Your task to perform on an android device: open app "LiveIn - Share Your Moment" (install if not already installed) and go to login screen Image 0: 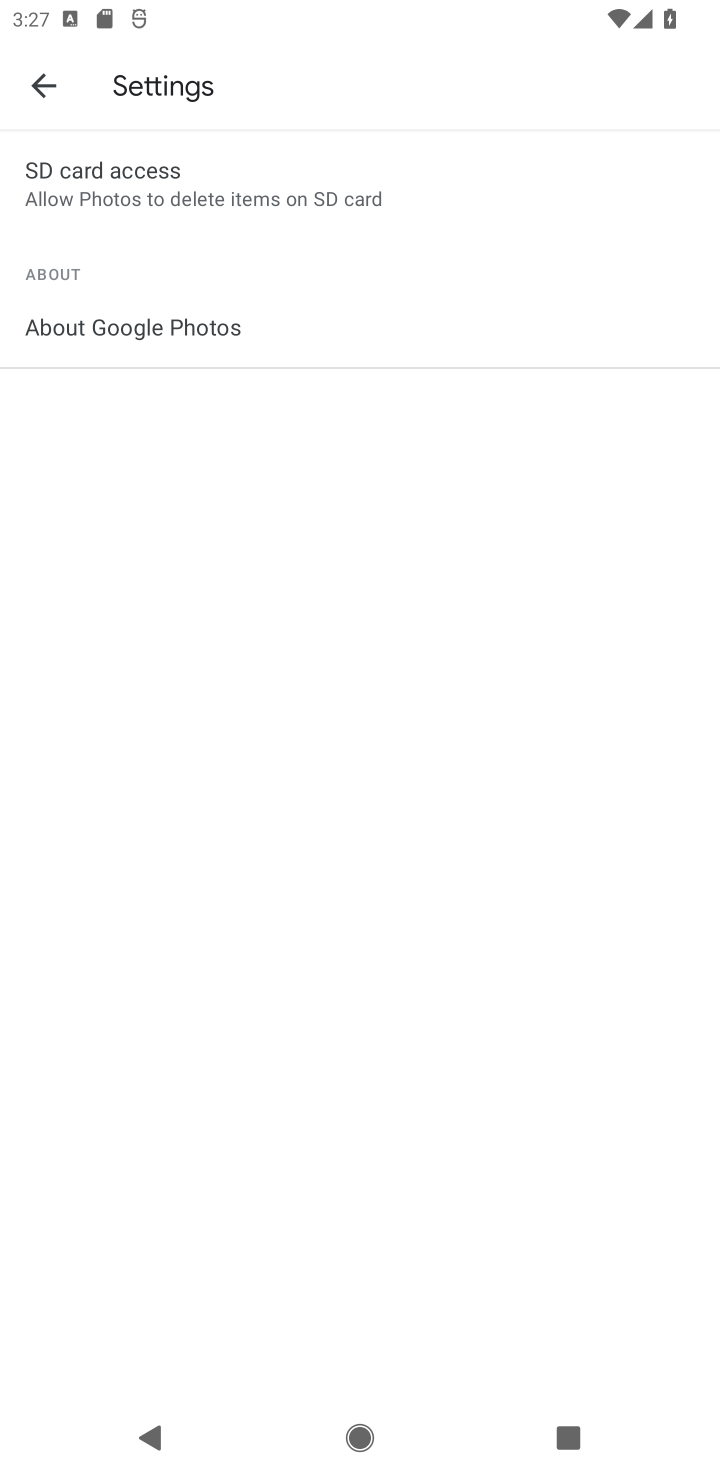
Step 0: press home button
Your task to perform on an android device: open app "LiveIn - Share Your Moment" (install if not already installed) and go to login screen Image 1: 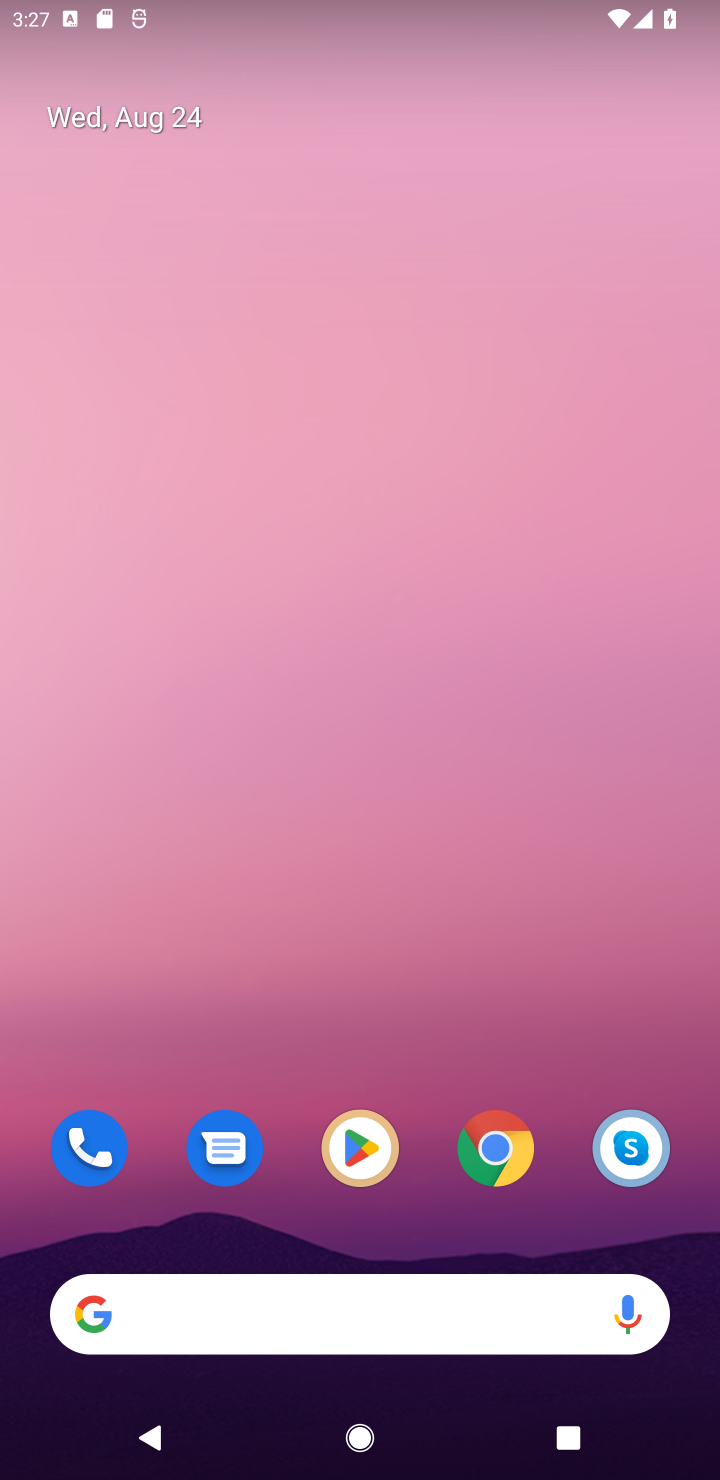
Step 1: click (369, 1153)
Your task to perform on an android device: open app "LiveIn - Share Your Moment" (install if not already installed) and go to login screen Image 2: 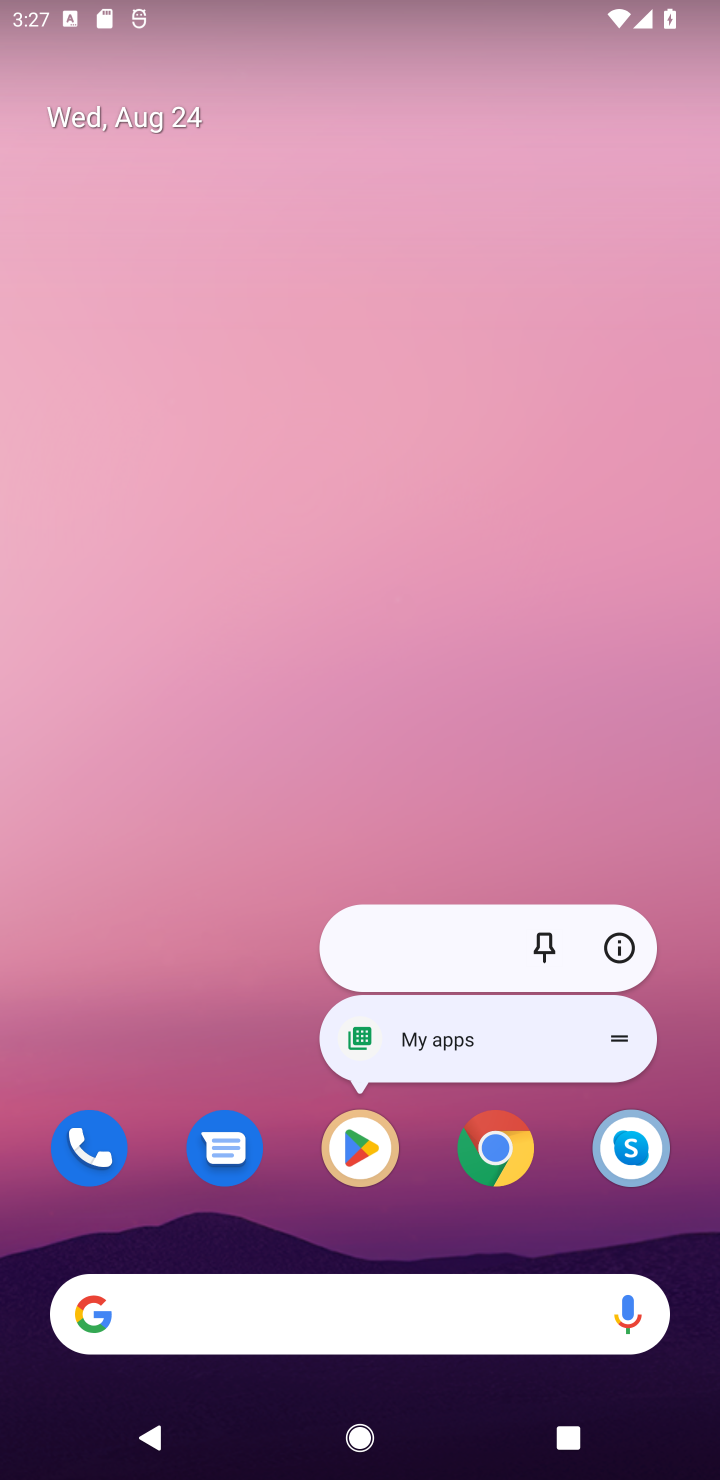
Step 2: click (351, 1167)
Your task to perform on an android device: open app "LiveIn - Share Your Moment" (install if not already installed) and go to login screen Image 3: 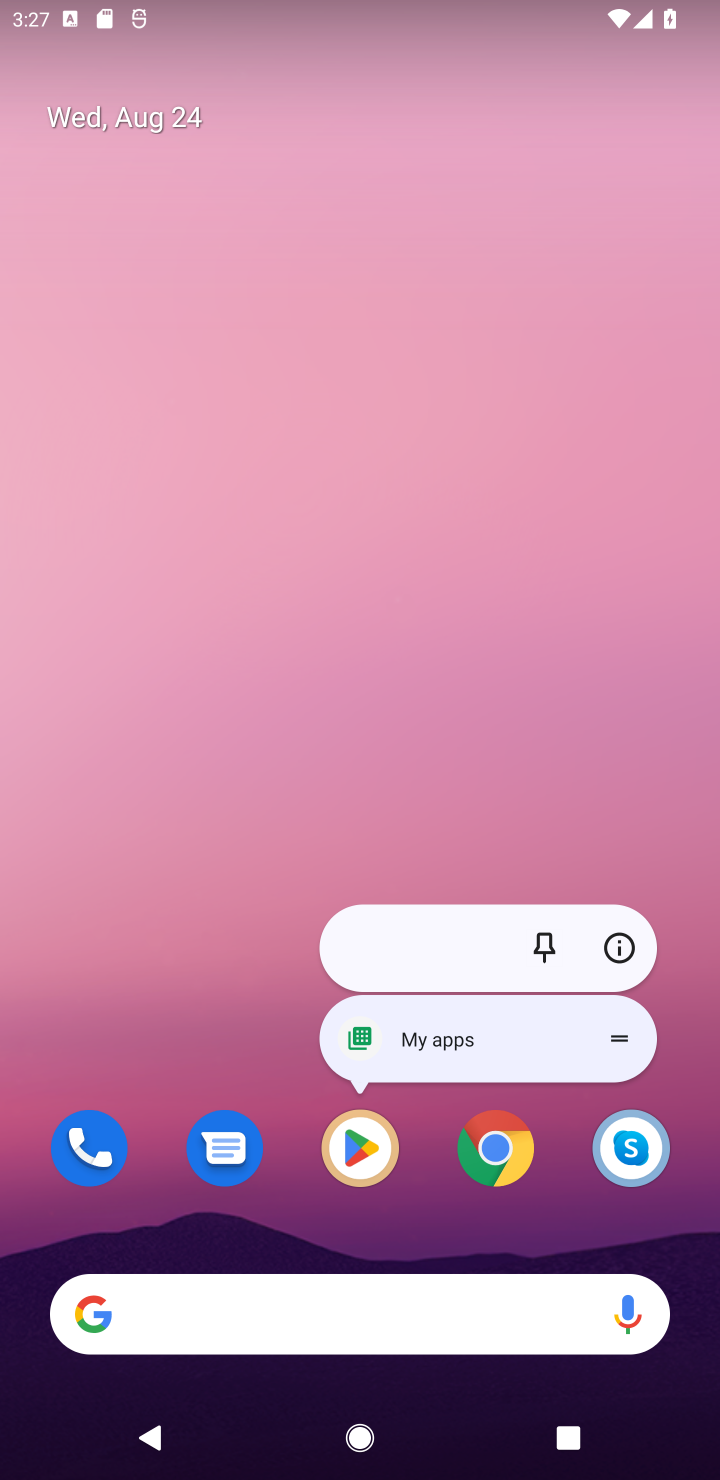
Step 3: click (376, 1131)
Your task to perform on an android device: open app "LiveIn - Share Your Moment" (install if not already installed) and go to login screen Image 4: 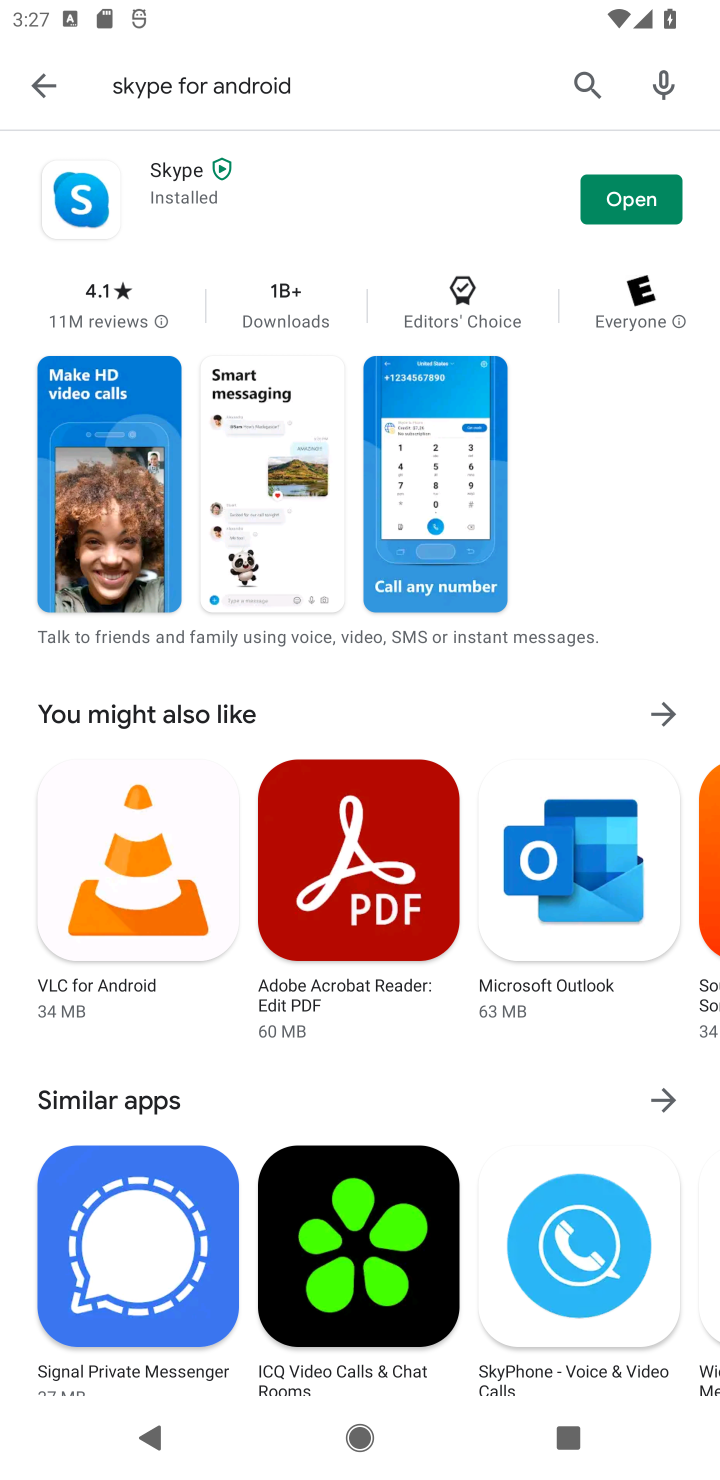
Step 4: click (591, 83)
Your task to perform on an android device: open app "LiveIn - Share Your Moment" (install if not already installed) and go to login screen Image 5: 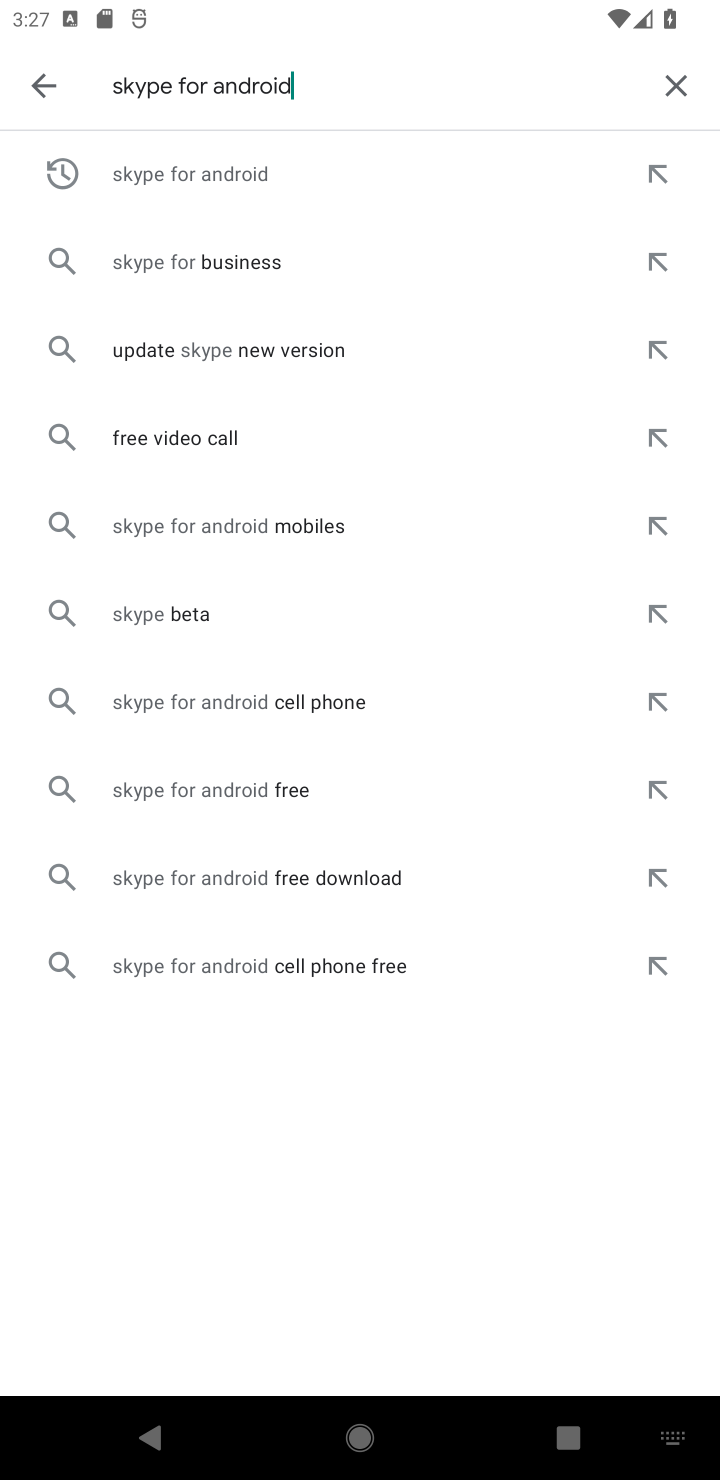
Step 5: click (662, 65)
Your task to perform on an android device: open app "LiveIn - Share Your Moment" (install if not already installed) and go to login screen Image 6: 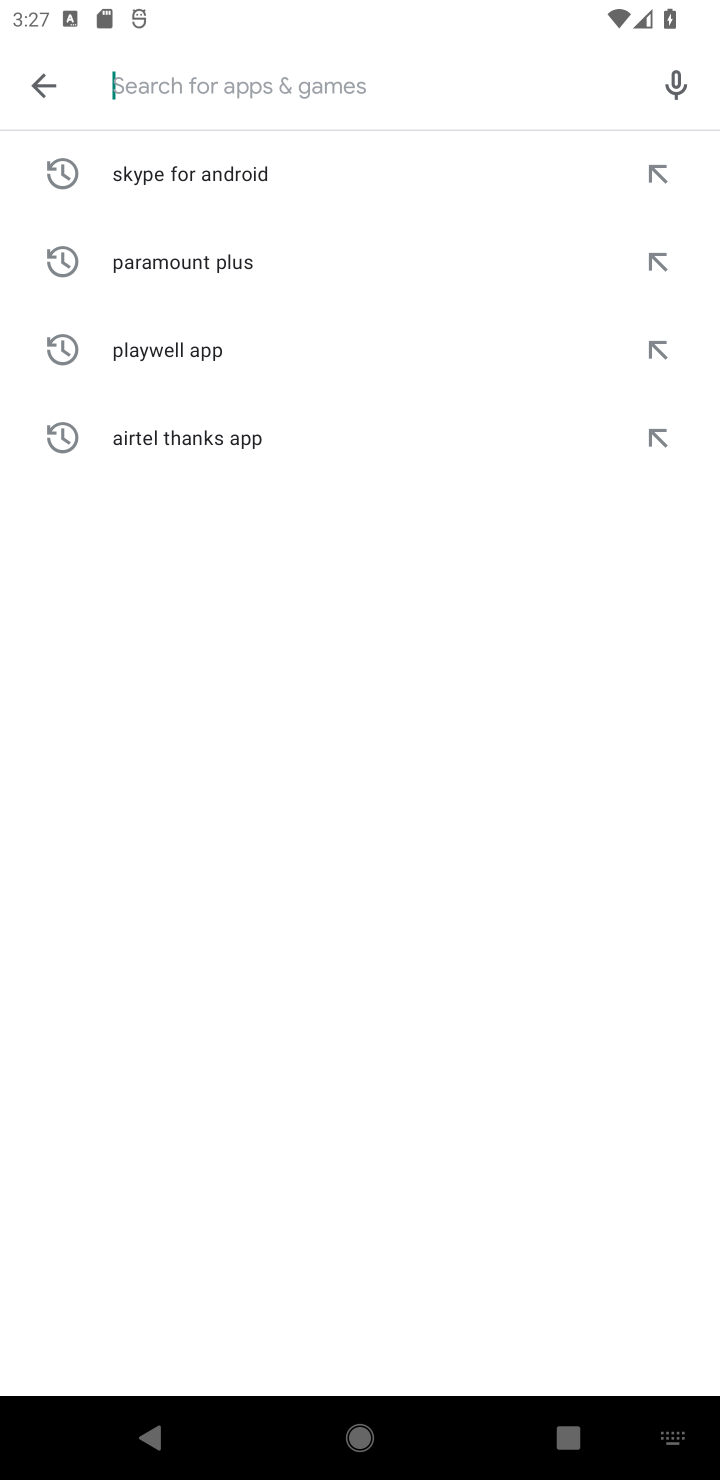
Step 6: click (243, 68)
Your task to perform on an android device: open app "LiveIn - Share Your Moment" (install if not already installed) and go to login screen Image 7: 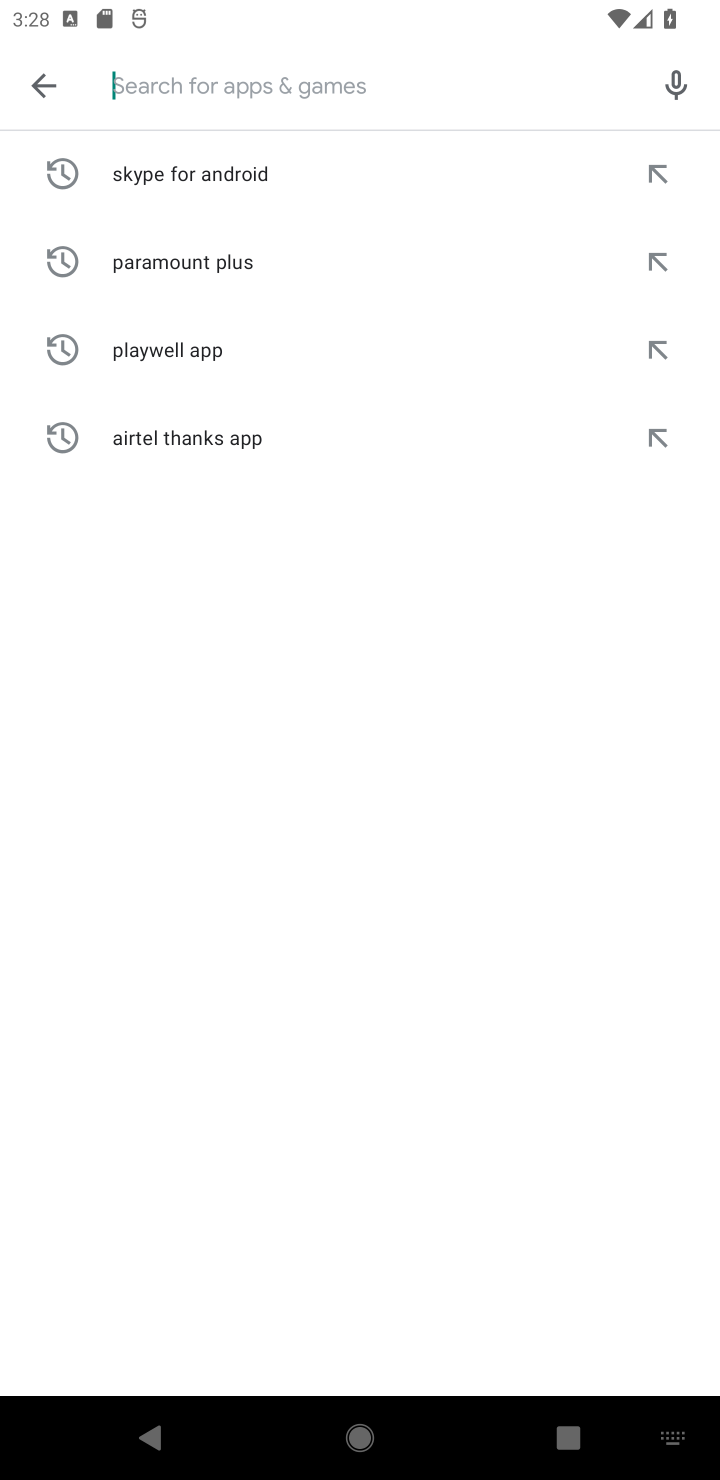
Step 7: type "LiveIn "
Your task to perform on an android device: open app "LiveIn - Share Your Moment" (install if not already installed) and go to login screen Image 8: 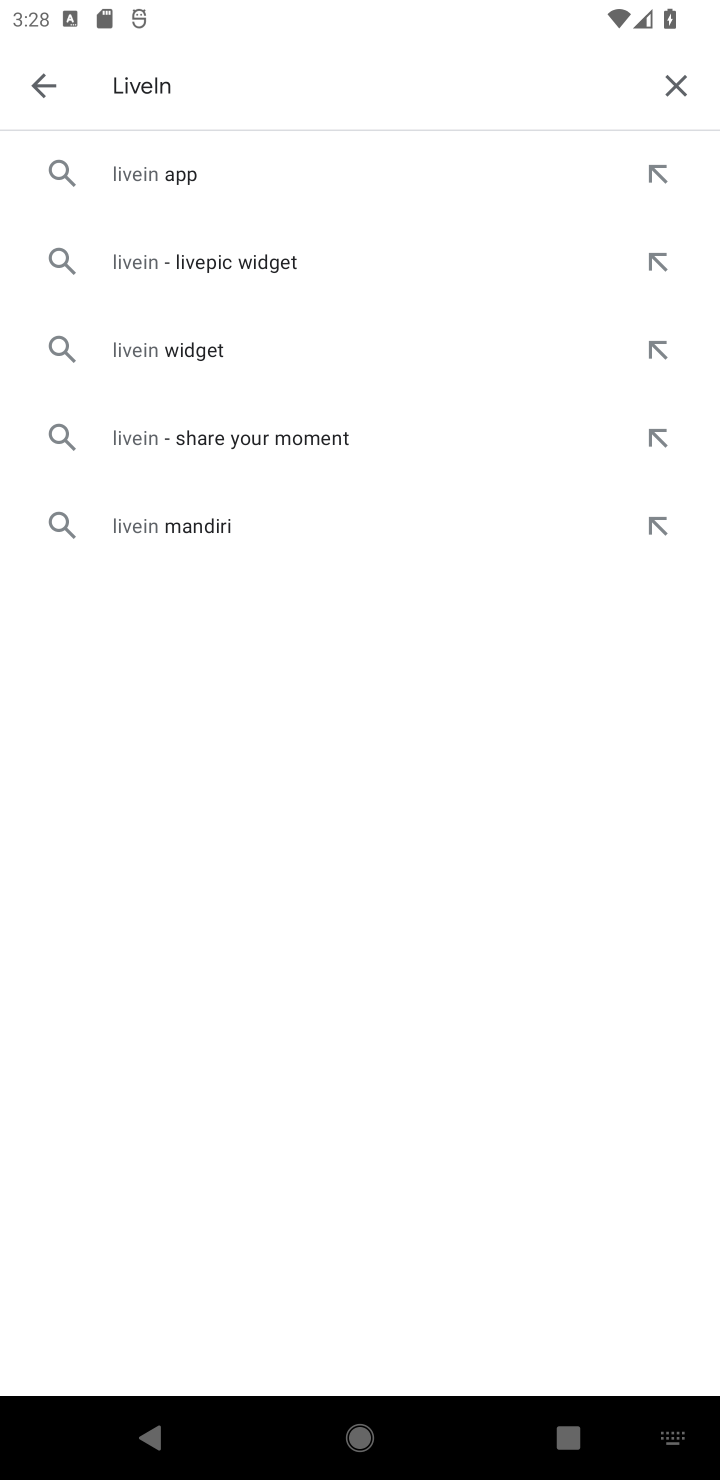
Step 8: click (244, 176)
Your task to perform on an android device: open app "LiveIn - Share Your Moment" (install if not already installed) and go to login screen Image 9: 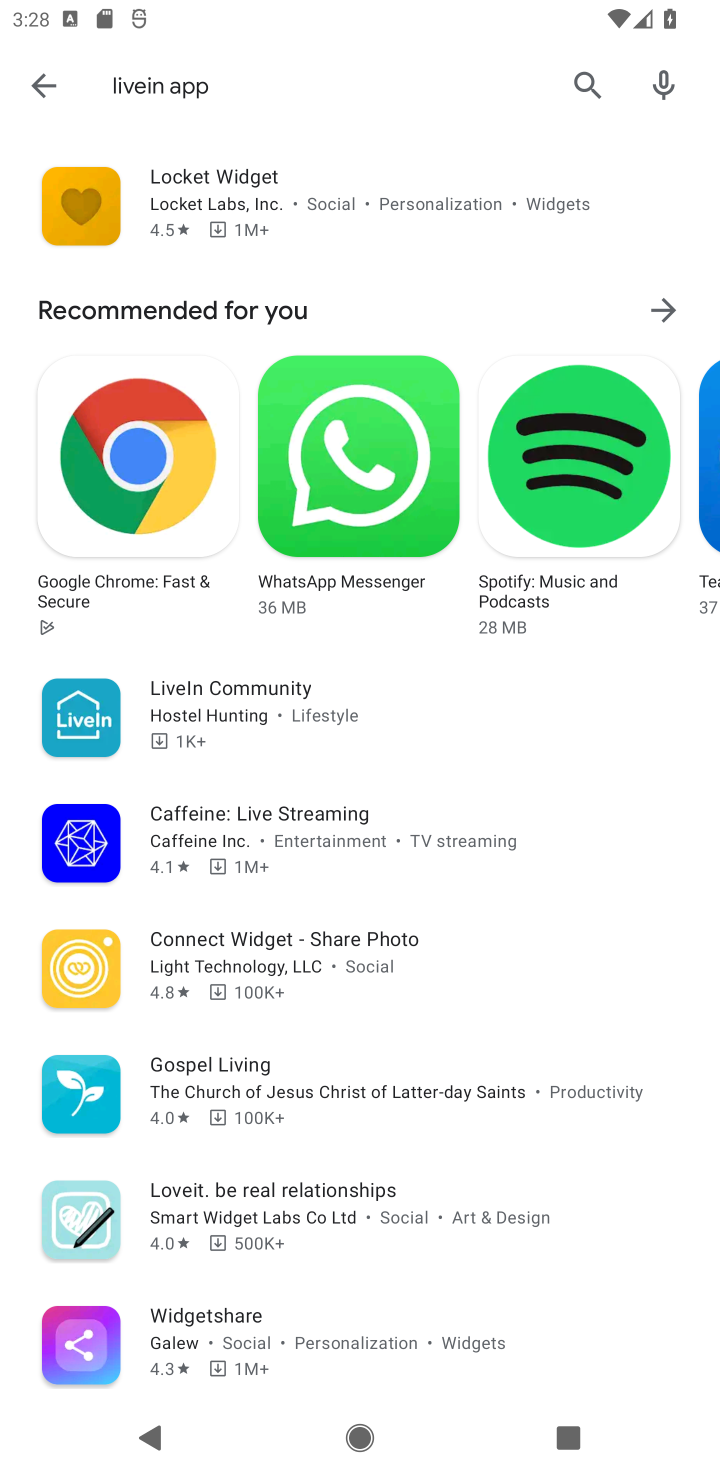
Step 9: click (434, 1189)
Your task to perform on an android device: open app "LiveIn - Share Your Moment" (install if not already installed) and go to login screen Image 10: 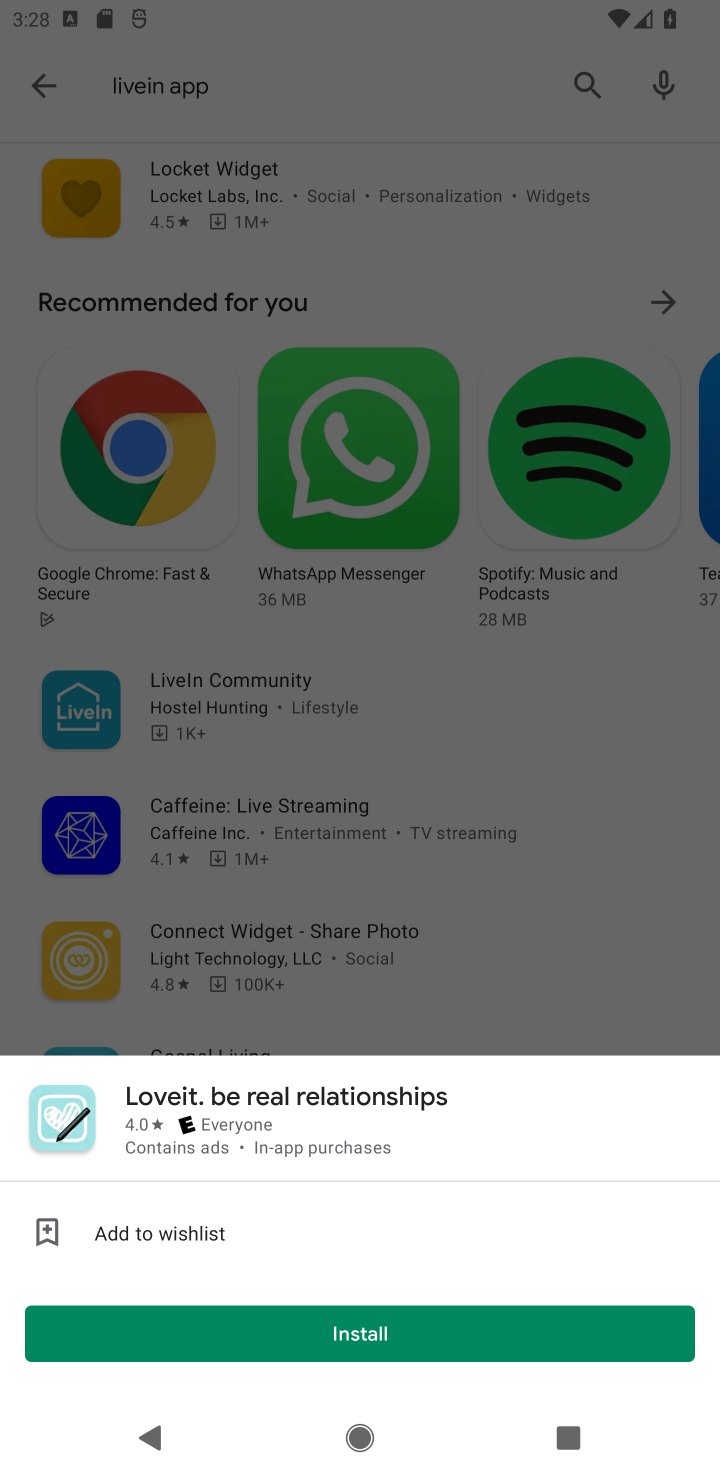
Step 10: drag from (347, 973) to (422, 779)
Your task to perform on an android device: open app "LiveIn - Share Your Moment" (install if not already installed) and go to login screen Image 11: 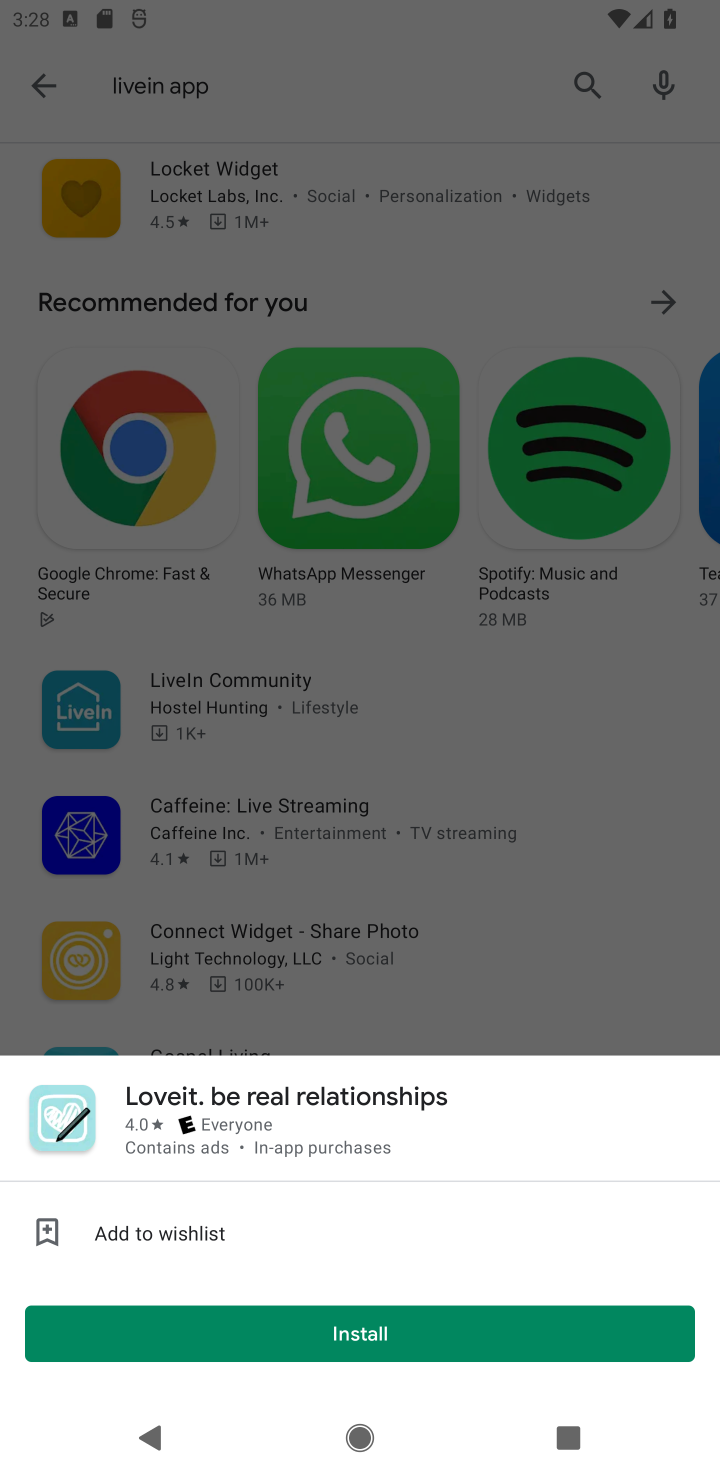
Step 11: click (448, 752)
Your task to perform on an android device: open app "LiveIn - Share Your Moment" (install if not already installed) and go to login screen Image 12: 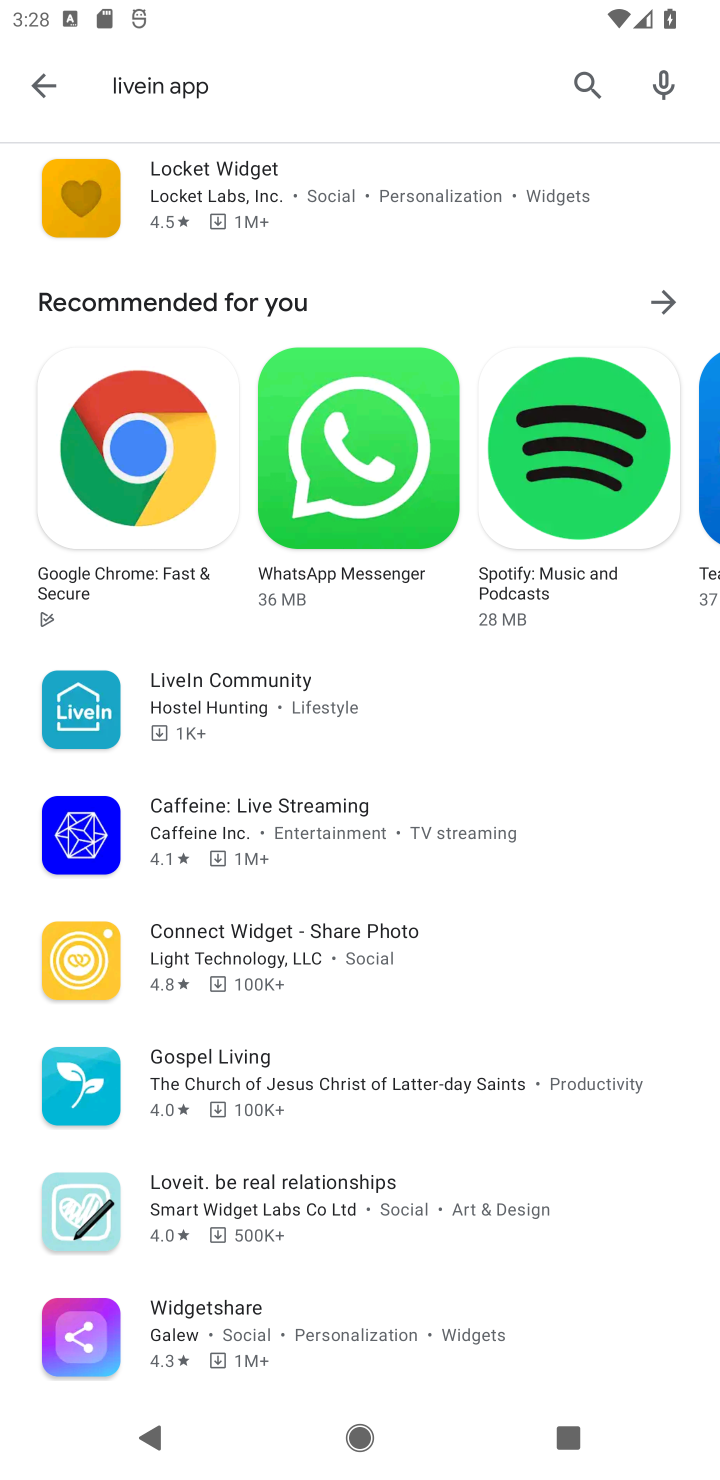
Step 12: click (175, 708)
Your task to perform on an android device: open app "LiveIn - Share Your Moment" (install if not already installed) and go to login screen Image 13: 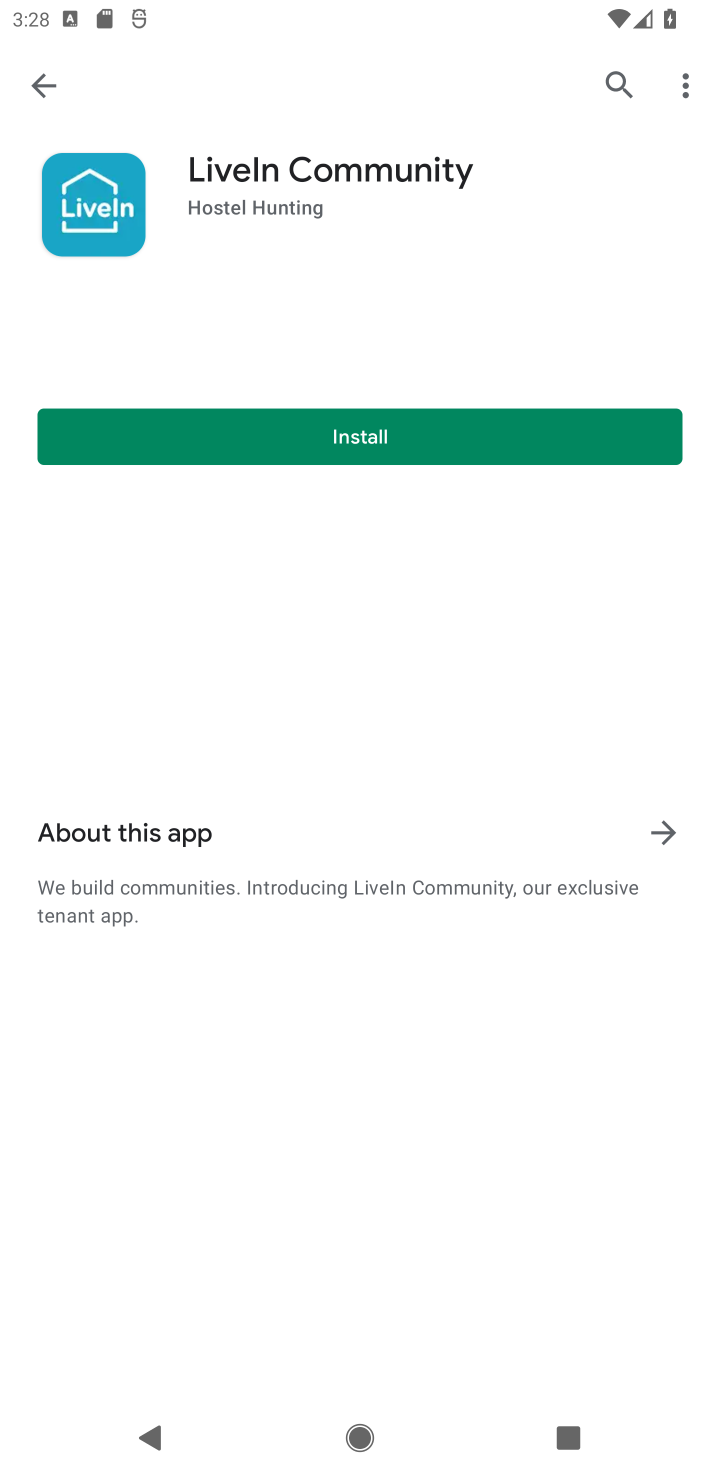
Step 13: click (322, 856)
Your task to perform on an android device: open app "LiveIn - Share Your Moment" (install if not already installed) and go to login screen Image 14: 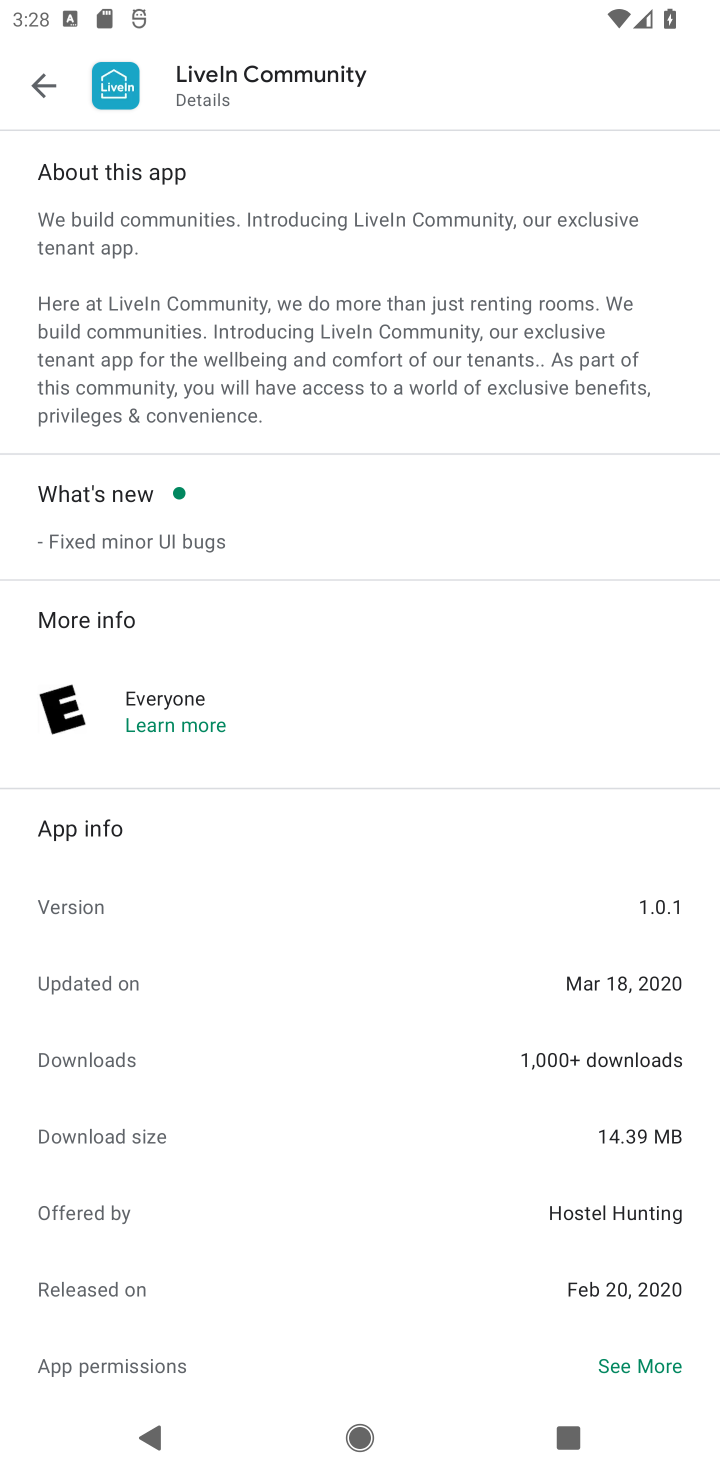
Step 14: click (338, 421)
Your task to perform on an android device: open app "LiveIn - Share Your Moment" (install if not already installed) and go to login screen Image 15: 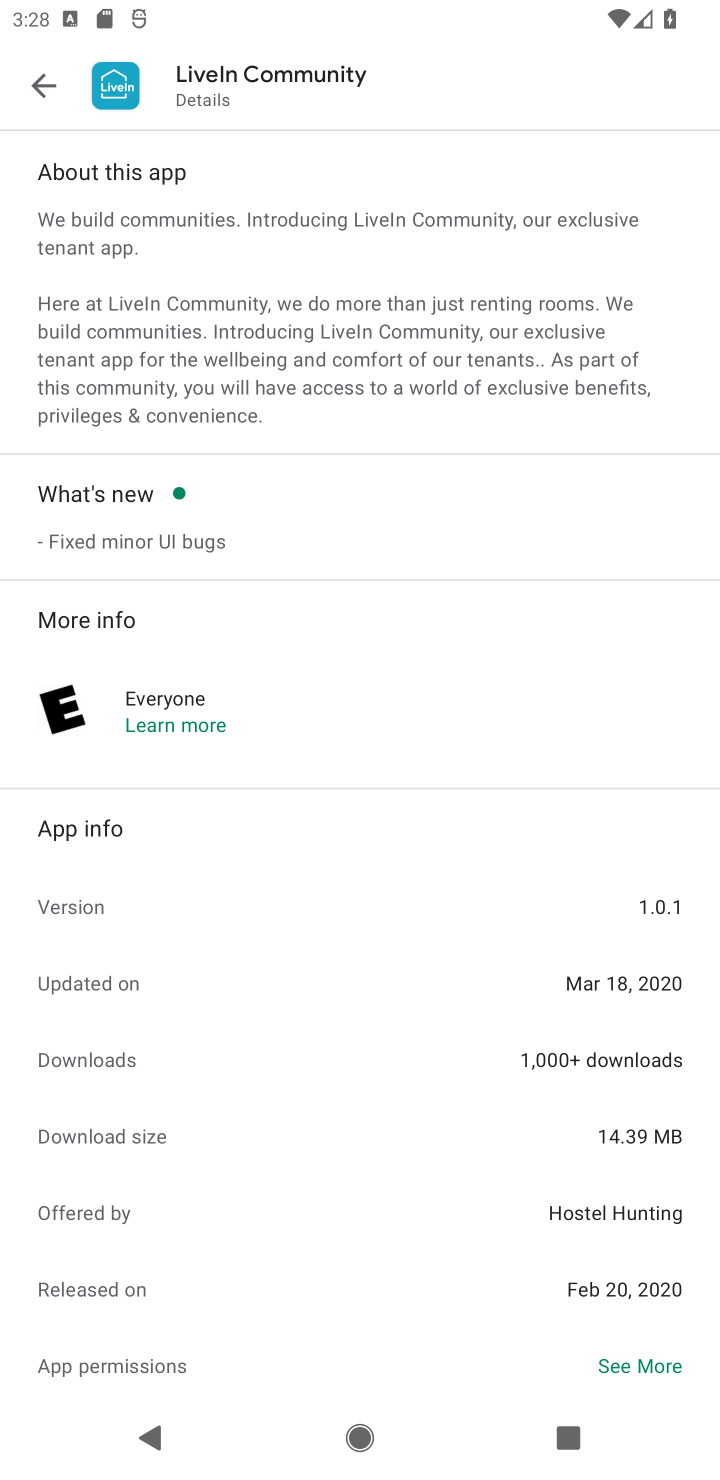
Step 15: click (45, 95)
Your task to perform on an android device: open app "LiveIn - Share Your Moment" (install if not already installed) and go to login screen Image 16: 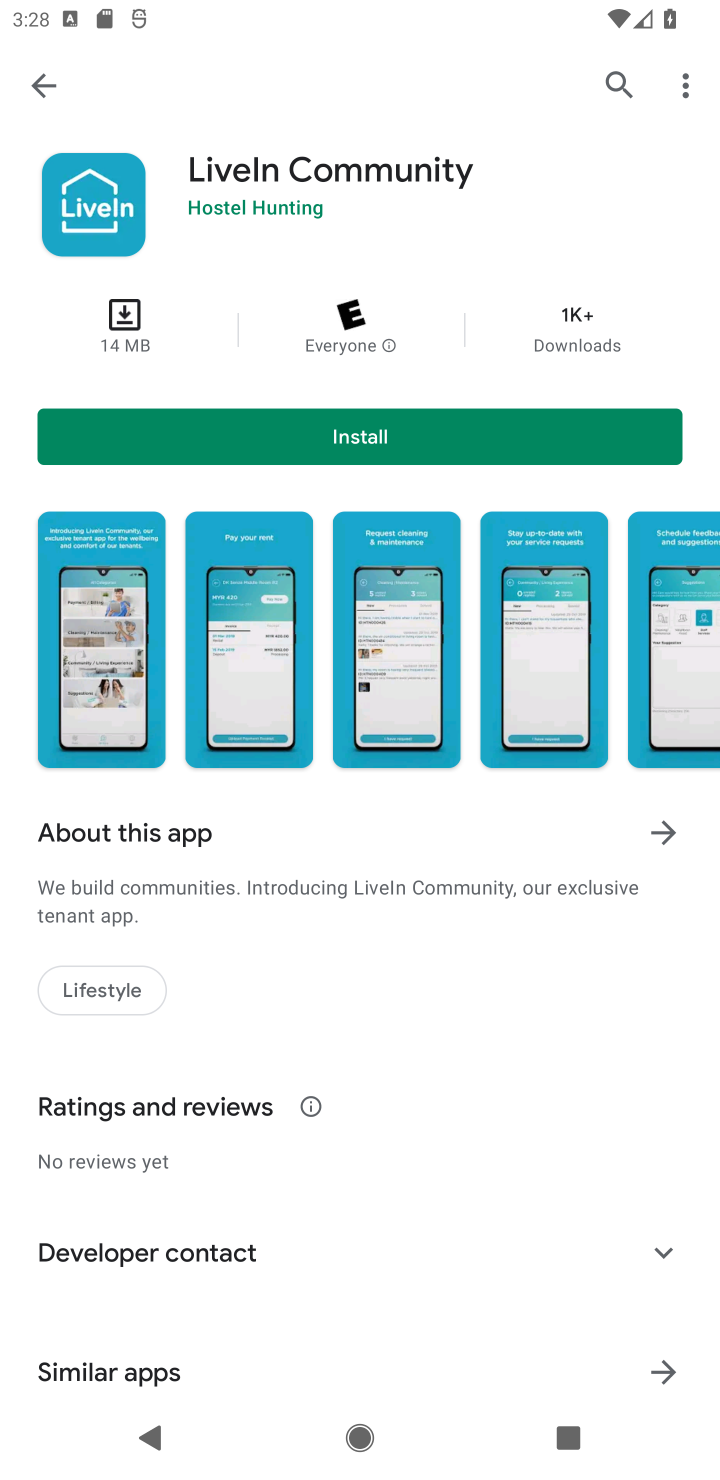
Step 16: click (222, 415)
Your task to perform on an android device: open app "LiveIn - Share Your Moment" (install if not already installed) and go to login screen Image 17: 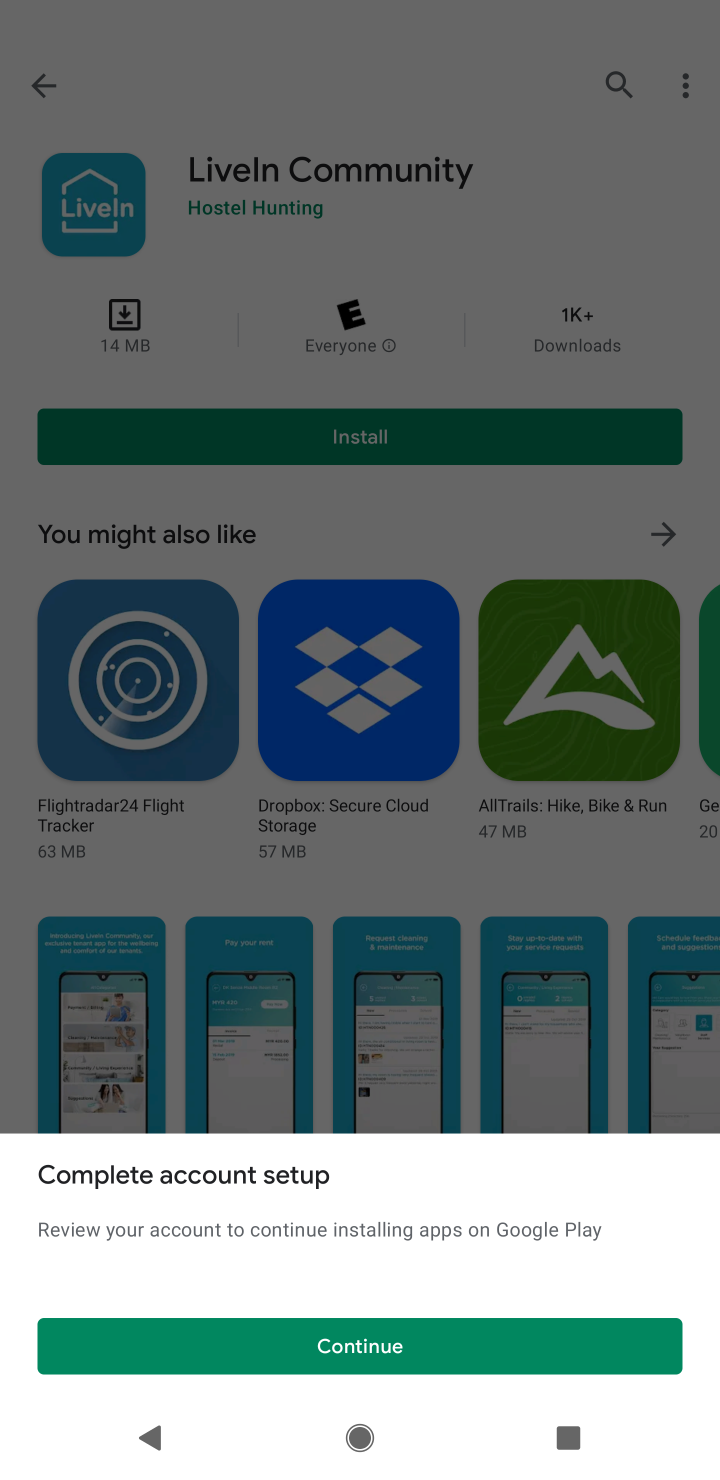
Step 17: task complete